Your task to perform on an android device: Open calendar and show me the first week of next month Image 0: 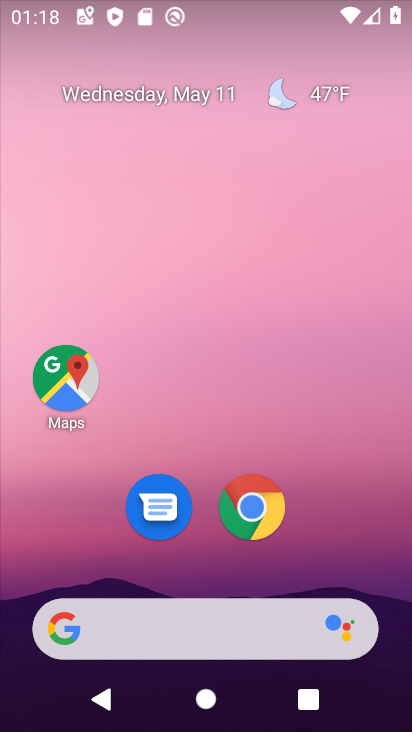
Step 0: drag from (320, 526) to (233, 122)
Your task to perform on an android device: Open calendar and show me the first week of next month Image 1: 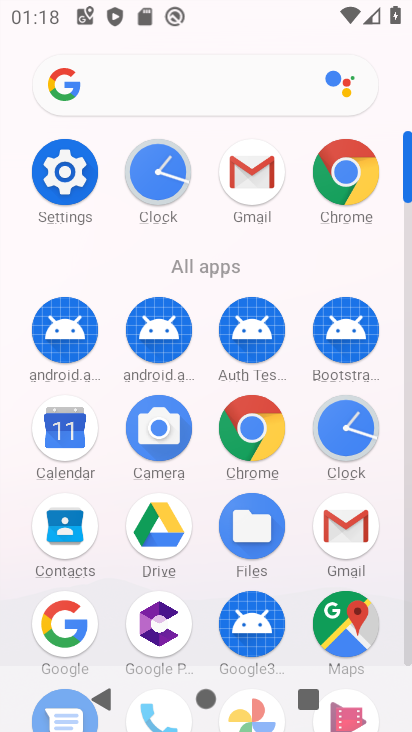
Step 1: click (46, 431)
Your task to perform on an android device: Open calendar and show me the first week of next month Image 2: 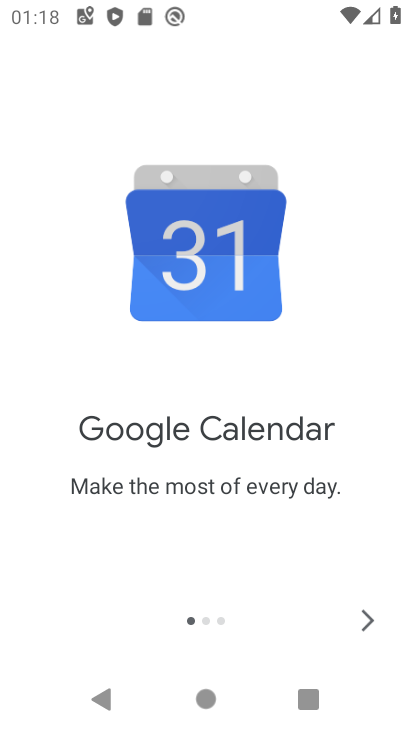
Step 2: click (364, 620)
Your task to perform on an android device: Open calendar and show me the first week of next month Image 3: 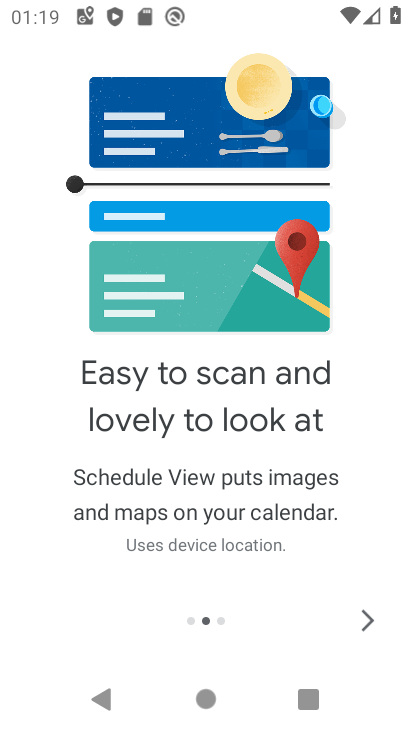
Step 3: click (364, 620)
Your task to perform on an android device: Open calendar and show me the first week of next month Image 4: 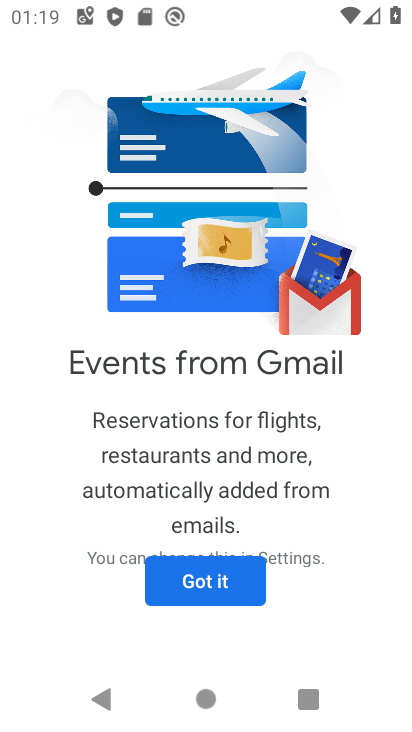
Step 4: click (197, 589)
Your task to perform on an android device: Open calendar and show me the first week of next month Image 5: 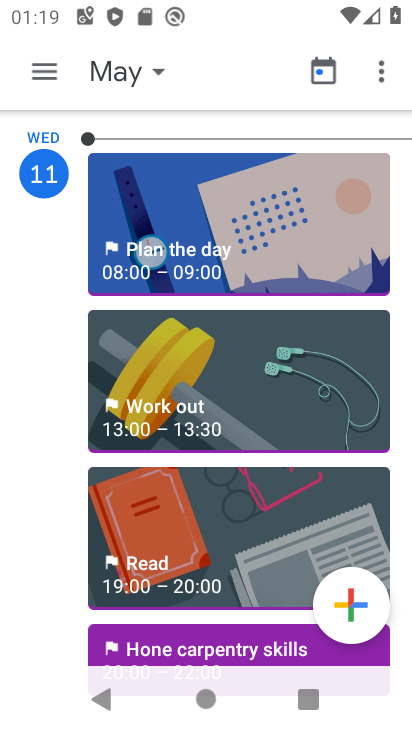
Step 5: click (47, 62)
Your task to perform on an android device: Open calendar and show me the first week of next month Image 6: 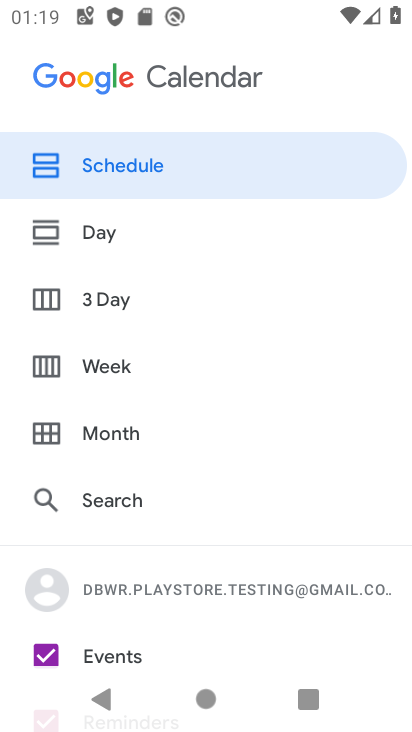
Step 6: click (115, 362)
Your task to perform on an android device: Open calendar and show me the first week of next month Image 7: 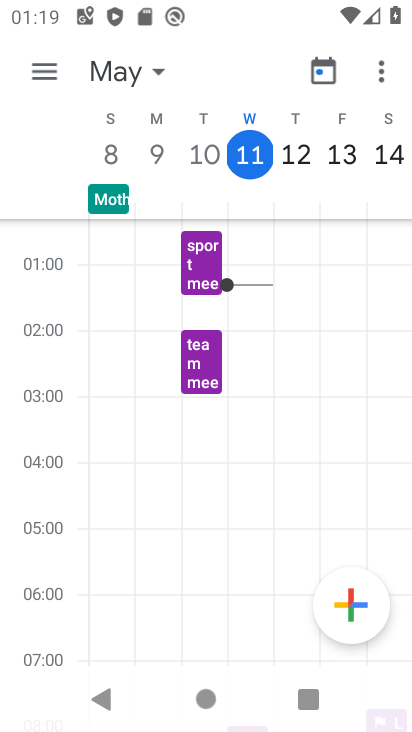
Step 7: click (155, 67)
Your task to perform on an android device: Open calendar and show me the first week of next month Image 8: 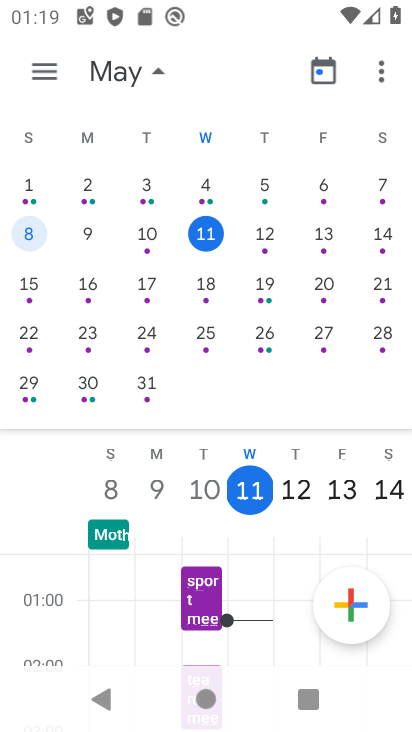
Step 8: task complete